Your task to perform on an android device: How do I get to the nearest Home Depot? Image 0: 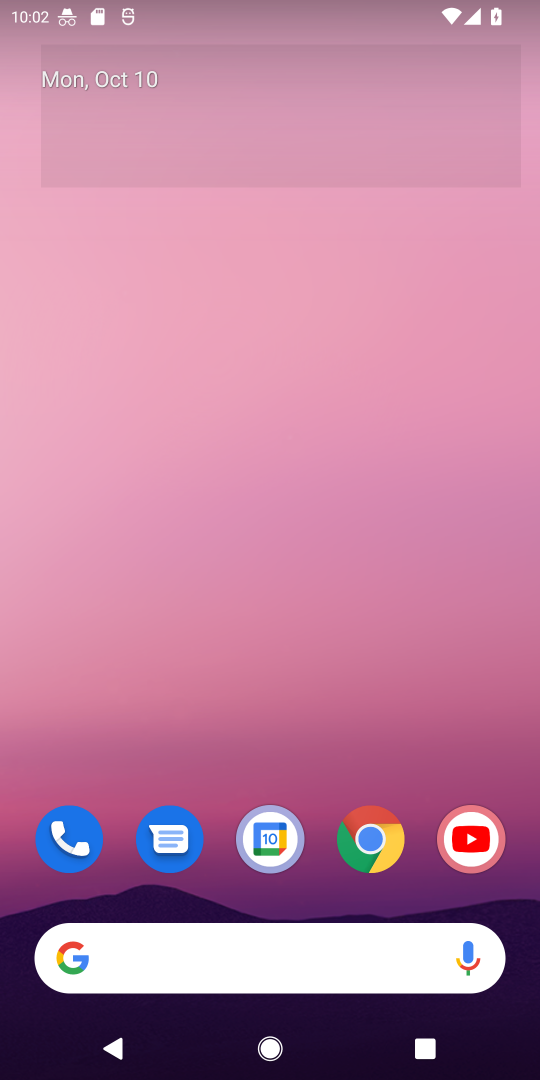
Step 0: drag from (320, 897) to (354, 87)
Your task to perform on an android device: How do I get to the nearest Home Depot? Image 1: 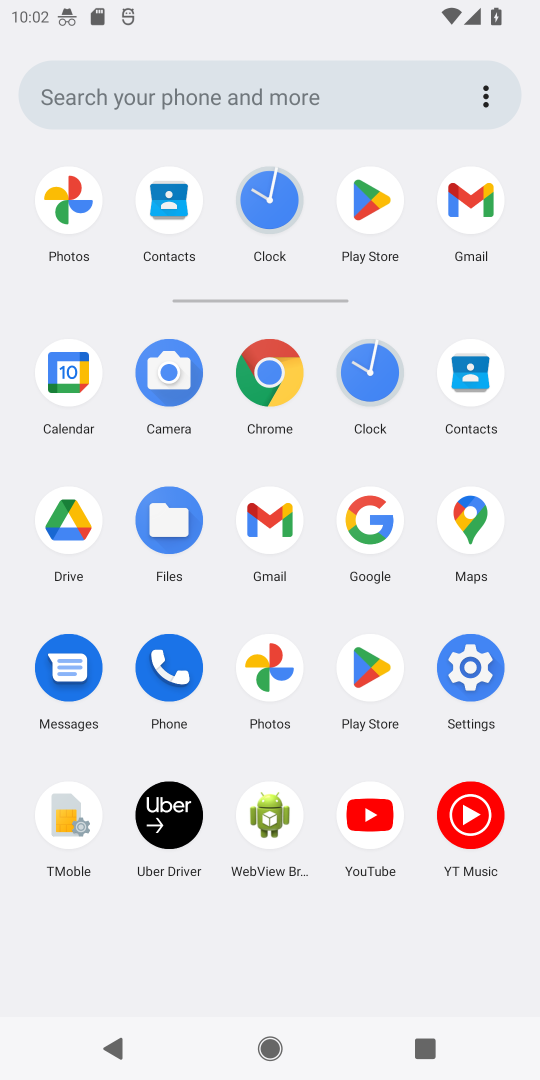
Step 1: click (280, 376)
Your task to perform on an android device: How do I get to the nearest Home Depot? Image 2: 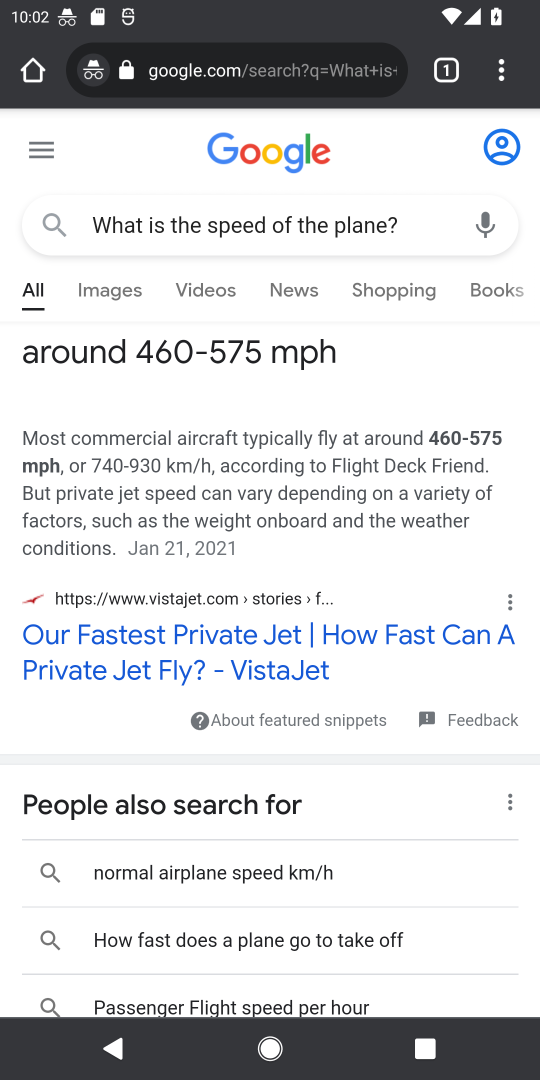
Step 2: click (259, 65)
Your task to perform on an android device: How do I get to the nearest Home Depot? Image 3: 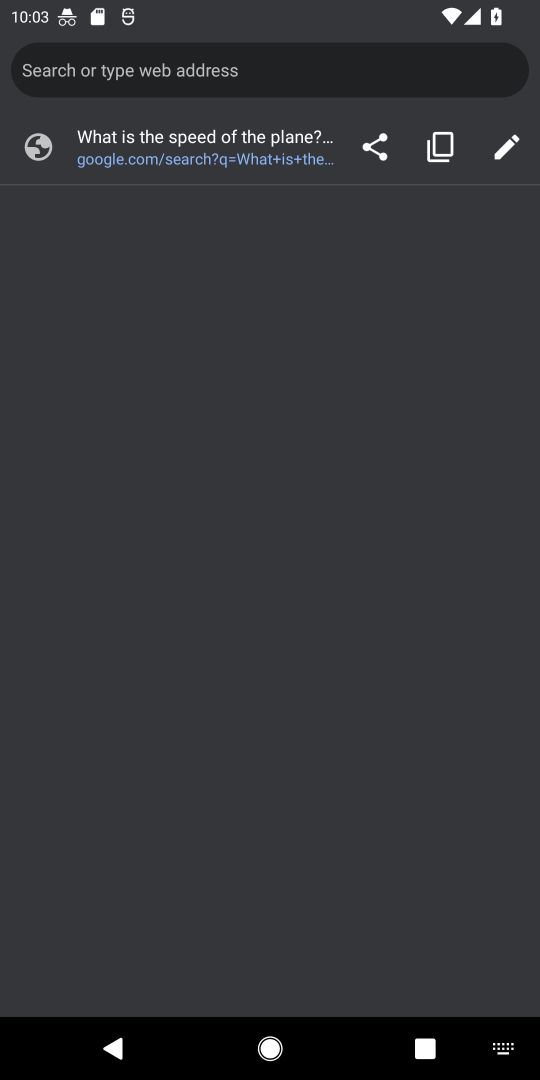
Step 3: type "How do I get to the nearest Home Seopt"
Your task to perform on an android device: How do I get to the nearest Home Depot? Image 4: 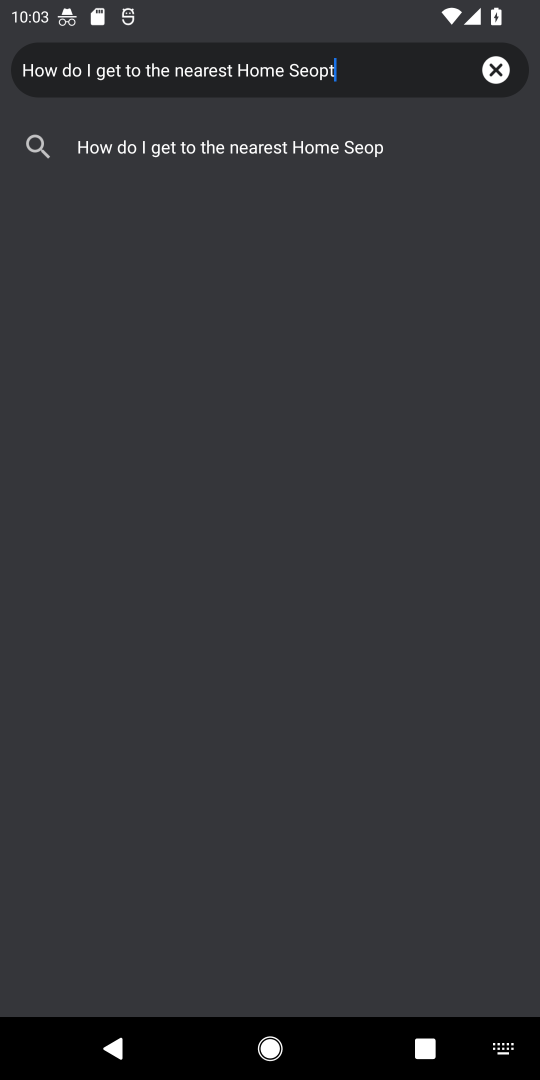
Step 4: type "?"
Your task to perform on an android device: How do I get to the nearest Home Depot? Image 5: 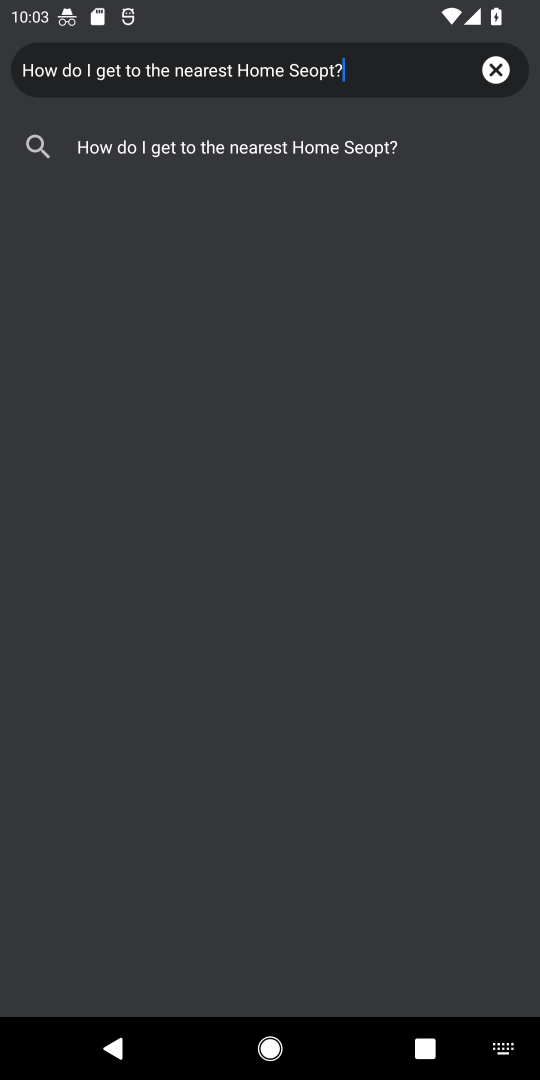
Step 5: press enter
Your task to perform on an android device: How do I get to the nearest Home Depot? Image 6: 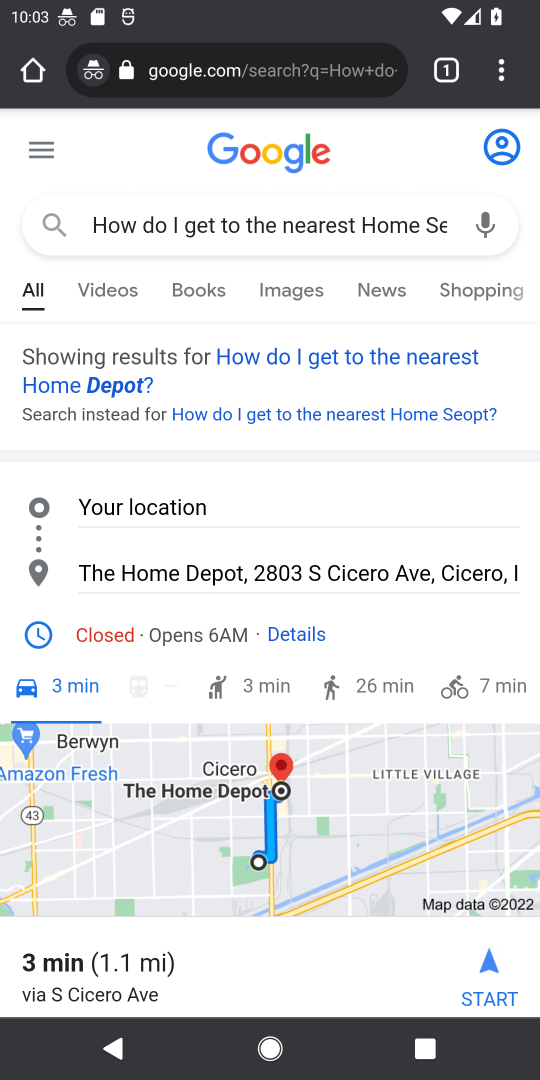
Step 6: task complete